Your task to perform on an android device: open sync settings in chrome Image 0: 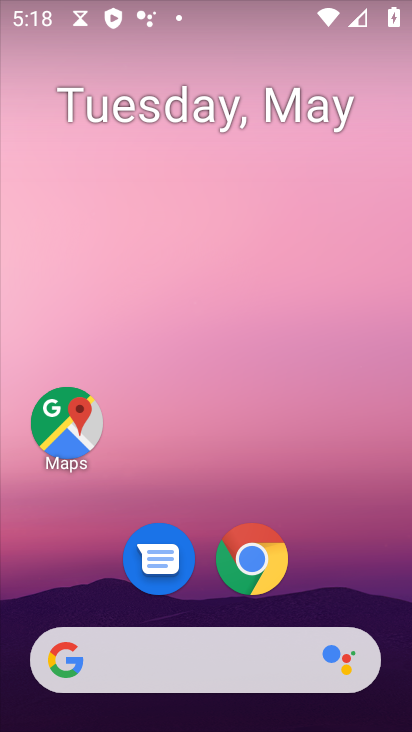
Step 0: drag from (353, 603) to (172, 0)
Your task to perform on an android device: open sync settings in chrome Image 1: 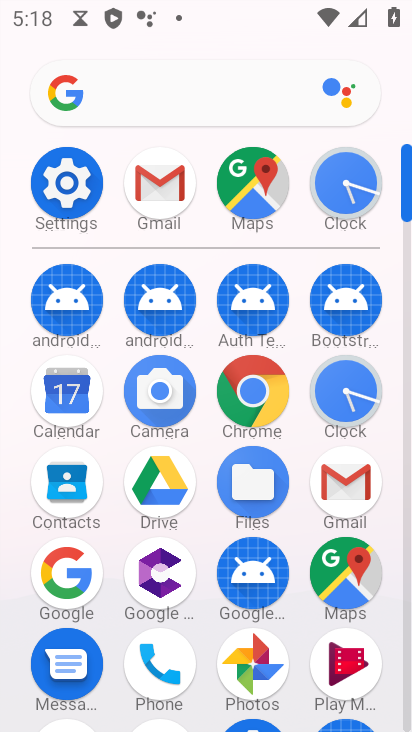
Step 1: click (53, 202)
Your task to perform on an android device: open sync settings in chrome Image 2: 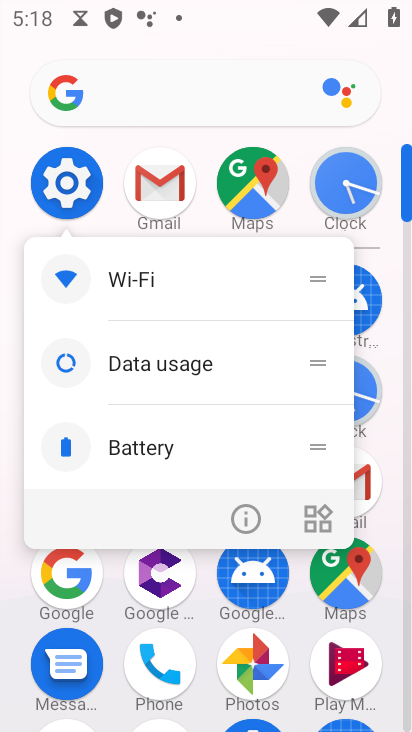
Step 2: click (396, 358)
Your task to perform on an android device: open sync settings in chrome Image 3: 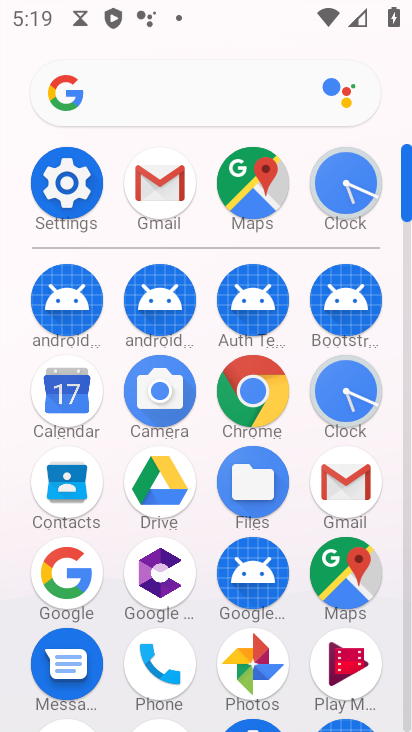
Step 3: click (250, 392)
Your task to perform on an android device: open sync settings in chrome Image 4: 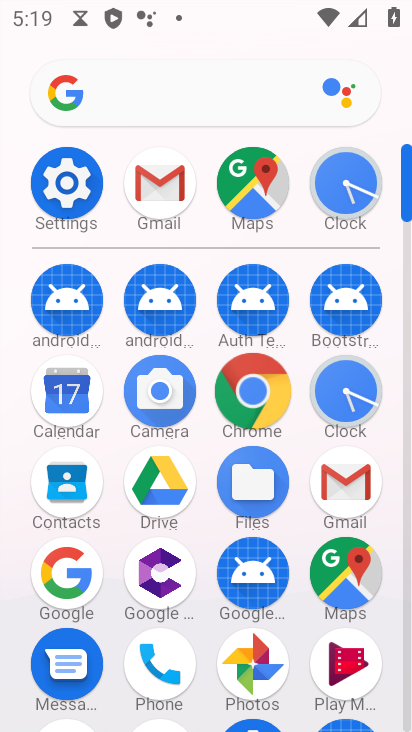
Step 4: click (250, 392)
Your task to perform on an android device: open sync settings in chrome Image 5: 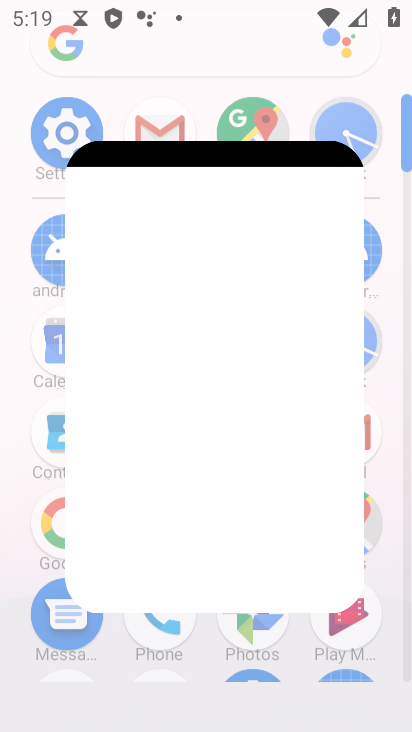
Step 5: click (250, 392)
Your task to perform on an android device: open sync settings in chrome Image 6: 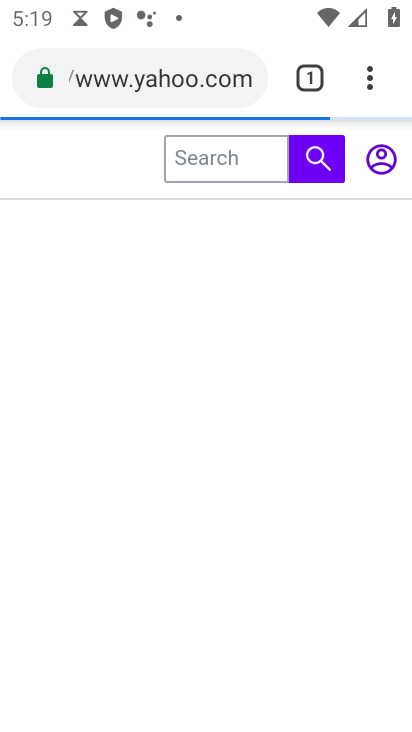
Step 6: click (375, 93)
Your task to perform on an android device: open sync settings in chrome Image 7: 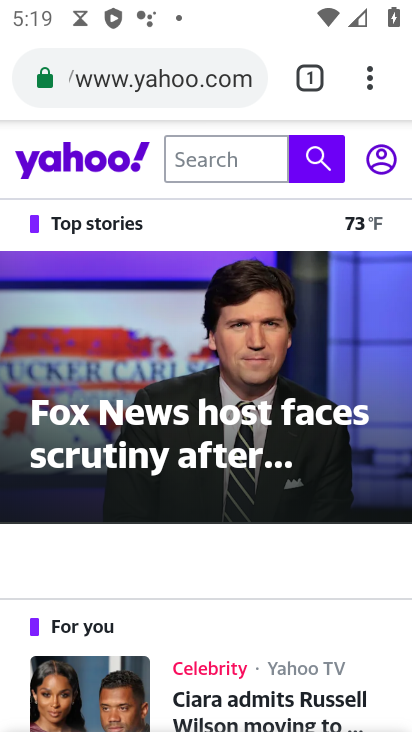
Step 7: click (363, 74)
Your task to perform on an android device: open sync settings in chrome Image 8: 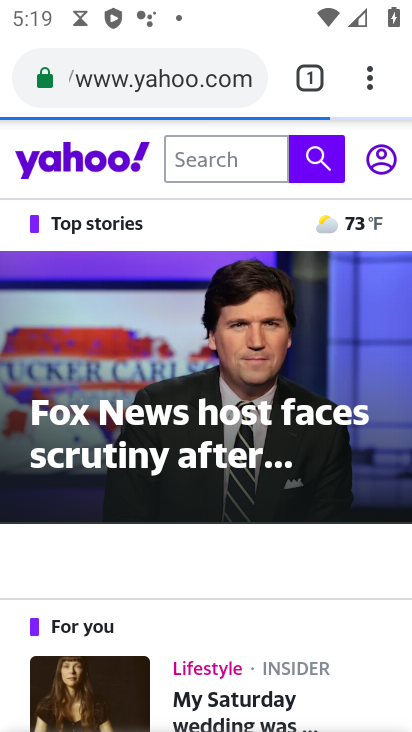
Step 8: drag from (363, 74) to (91, 607)
Your task to perform on an android device: open sync settings in chrome Image 9: 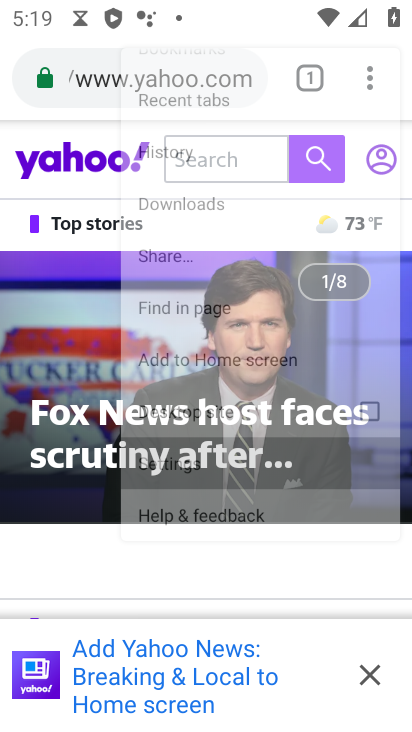
Step 9: click (92, 607)
Your task to perform on an android device: open sync settings in chrome Image 10: 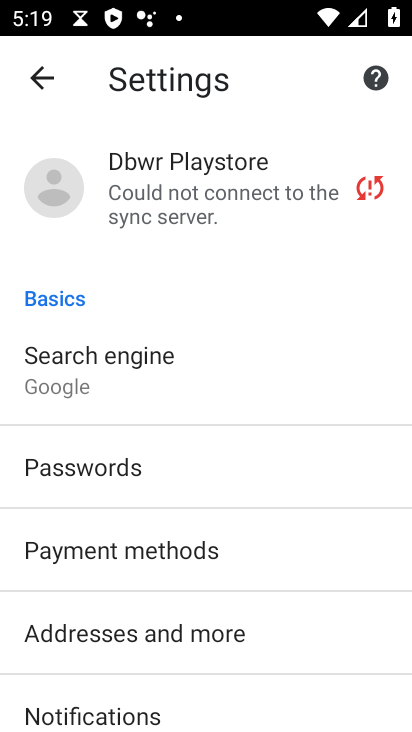
Step 10: drag from (150, 489) to (108, 79)
Your task to perform on an android device: open sync settings in chrome Image 11: 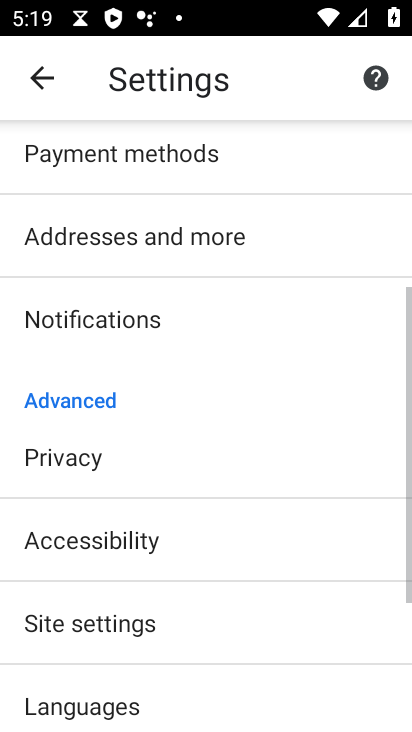
Step 11: drag from (192, 262) to (192, 185)
Your task to perform on an android device: open sync settings in chrome Image 12: 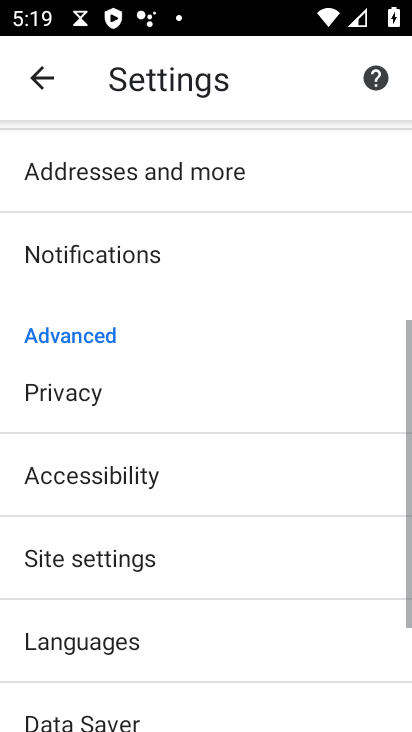
Step 12: drag from (208, 576) to (192, 231)
Your task to perform on an android device: open sync settings in chrome Image 13: 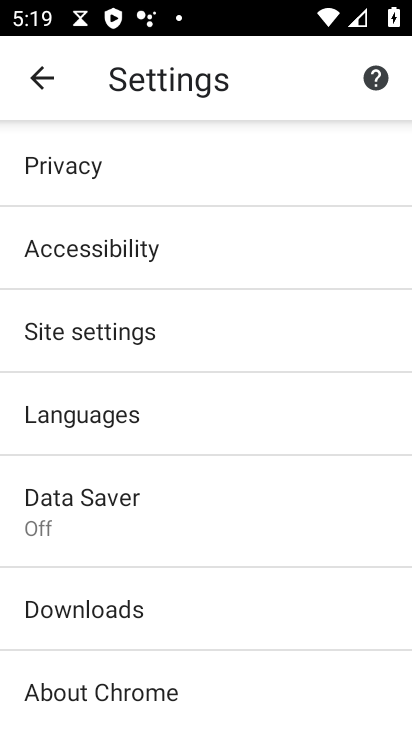
Step 13: click (68, 340)
Your task to perform on an android device: open sync settings in chrome Image 14: 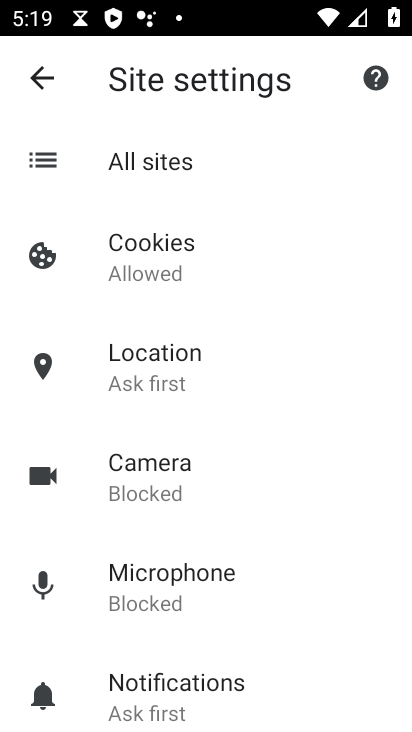
Step 14: drag from (188, 582) to (115, 144)
Your task to perform on an android device: open sync settings in chrome Image 15: 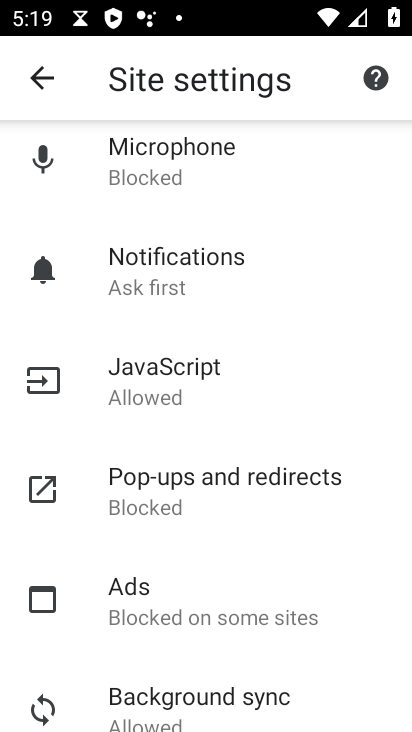
Step 15: click (163, 700)
Your task to perform on an android device: open sync settings in chrome Image 16: 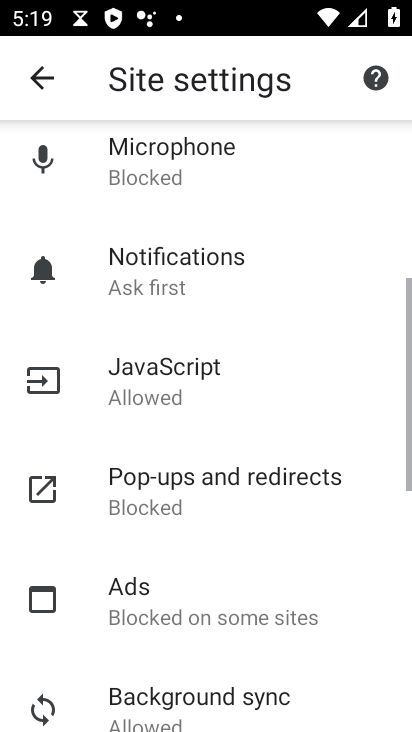
Step 16: click (163, 700)
Your task to perform on an android device: open sync settings in chrome Image 17: 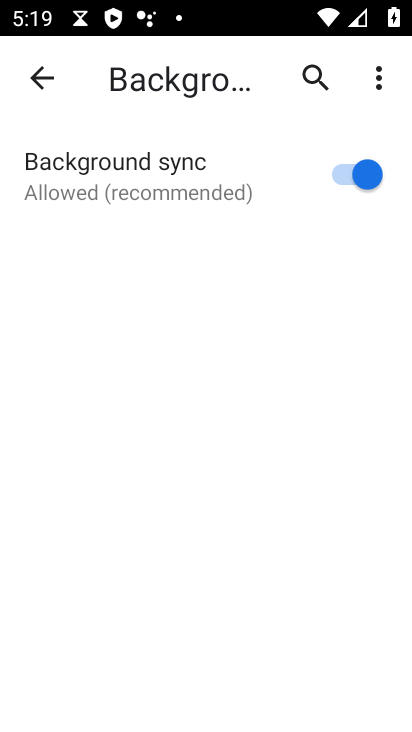
Step 17: click (166, 700)
Your task to perform on an android device: open sync settings in chrome Image 18: 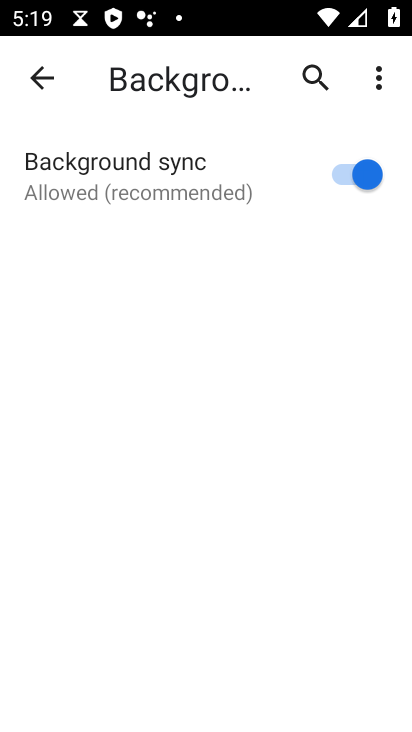
Step 18: task complete